Your task to perform on an android device: Go to battery settings Image 0: 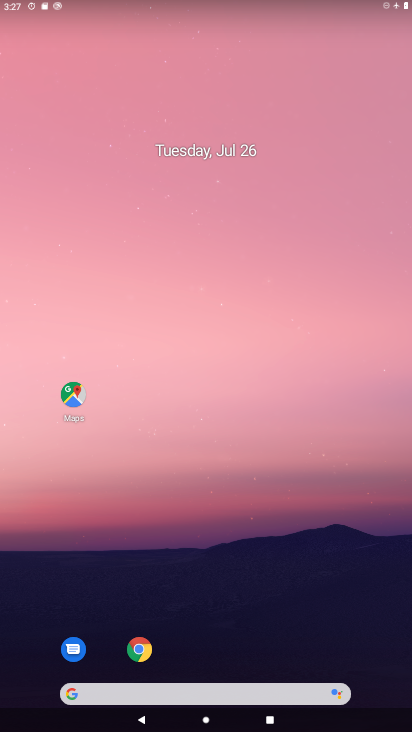
Step 0: drag from (357, 647) to (189, 18)
Your task to perform on an android device: Go to battery settings Image 1: 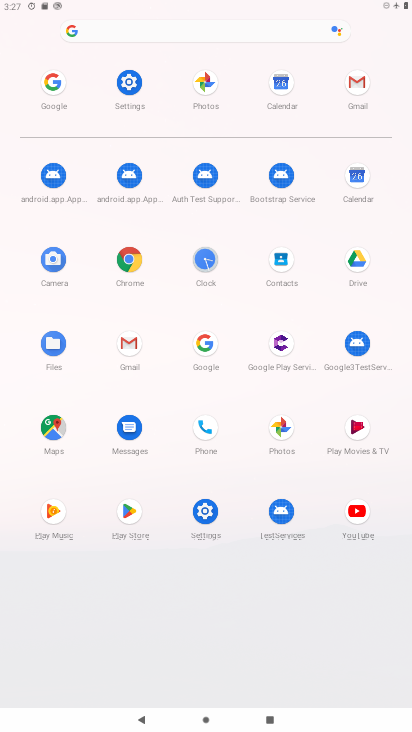
Step 1: click (213, 516)
Your task to perform on an android device: Go to battery settings Image 2: 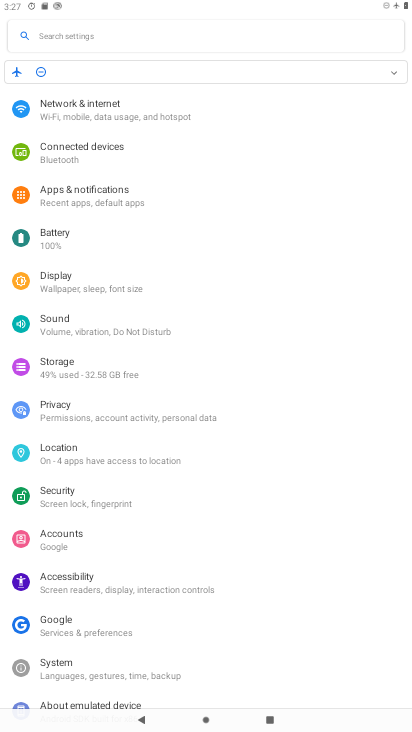
Step 2: click (90, 236)
Your task to perform on an android device: Go to battery settings Image 3: 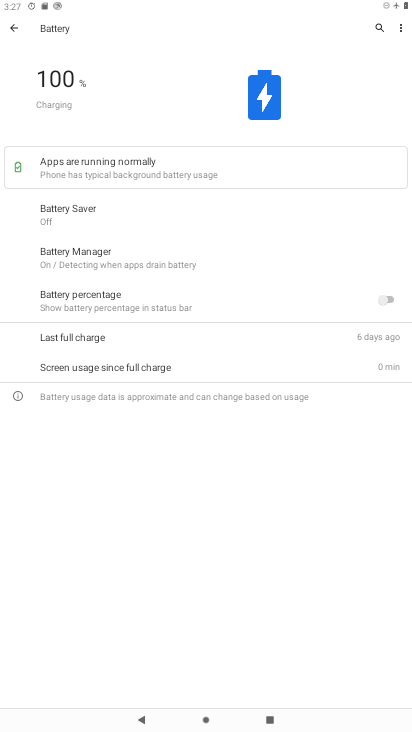
Step 3: task complete